Your task to perform on an android device: turn notification dots on Image 0: 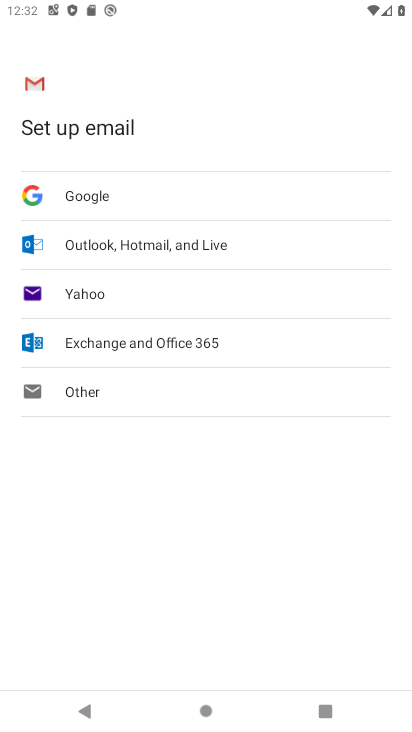
Step 0: press home button
Your task to perform on an android device: turn notification dots on Image 1: 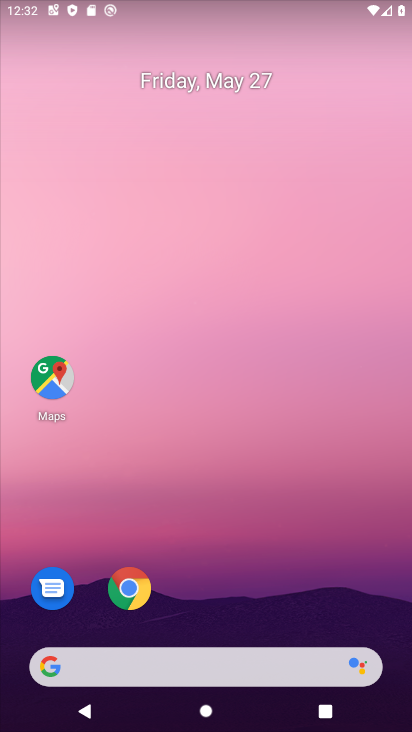
Step 1: drag from (147, 724) to (180, 72)
Your task to perform on an android device: turn notification dots on Image 2: 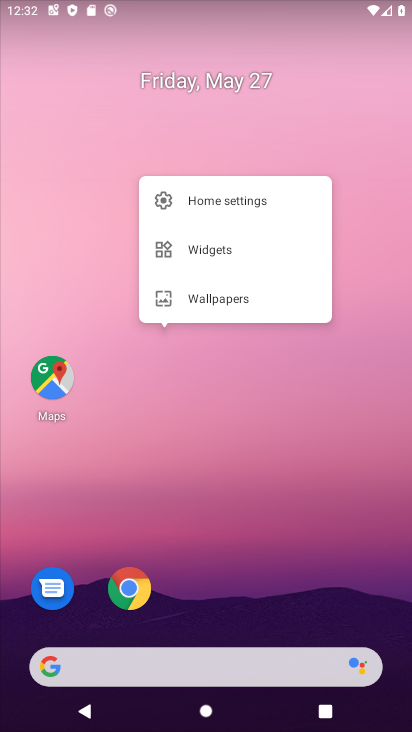
Step 2: click (143, 731)
Your task to perform on an android device: turn notification dots on Image 3: 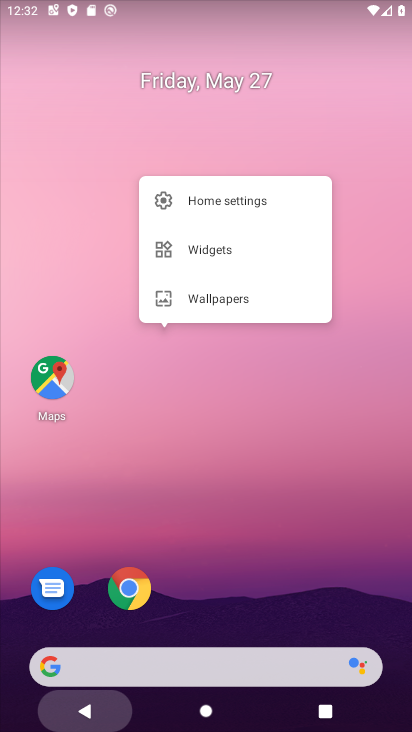
Step 3: drag from (146, 581) to (136, 90)
Your task to perform on an android device: turn notification dots on Image 4: 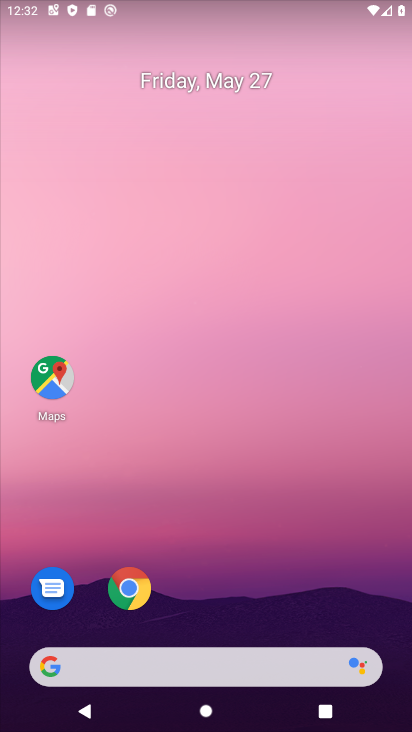
Step 4: press home button
Your task to perform on an android device: turn notification dots on Image 5: 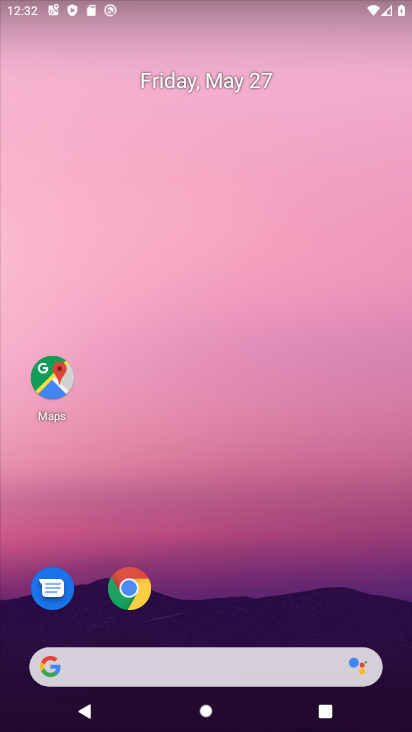
Step 5: drag from (157, 729) to (186, 62)
Your task to perform on an android device: turn notification dots on Image 6: 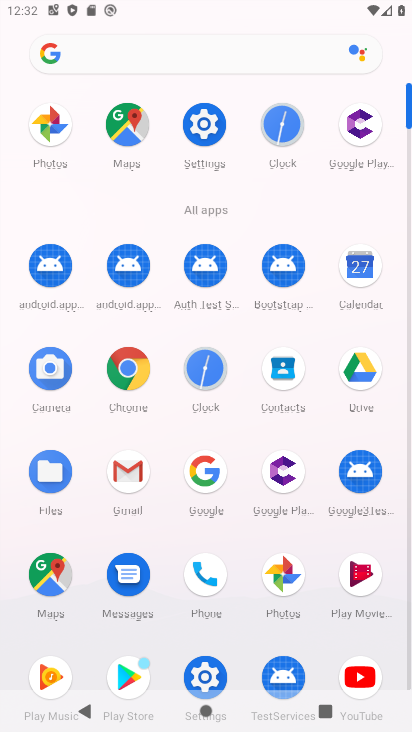
Step 6: click (207, 138)
Your task to perform on an android device: turn notification dots on Image 7: 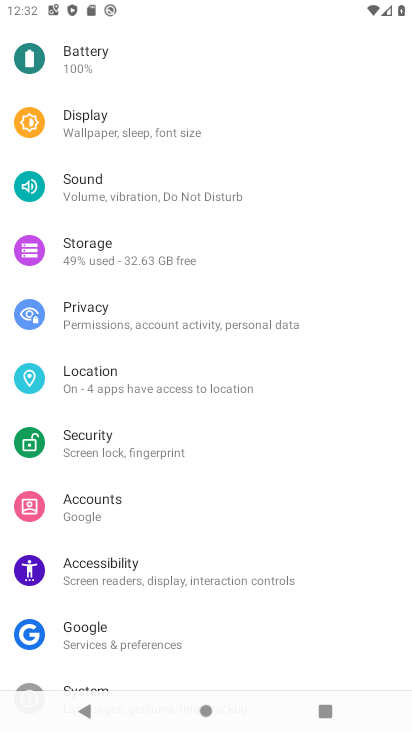
Step 7: drag from (261, 139) to (260, 514)
Your task to perform on an android device: turn notification dots on Image 8: 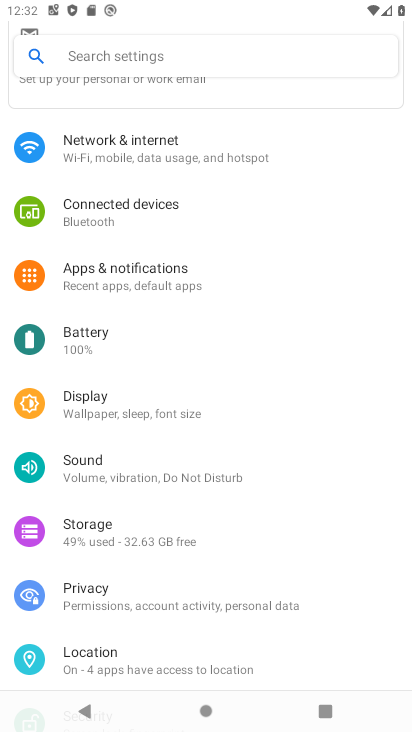
Step 8: click (165, 281)
Your task to perform on an android device: turn notification dots on Image 9: 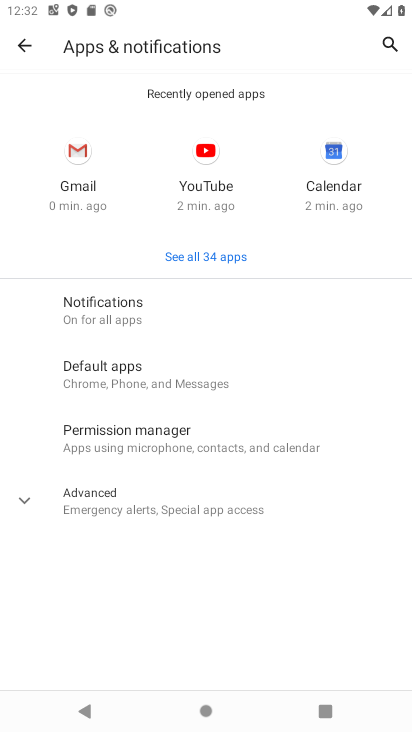
Step 9: click (138, 311)
Your task to perform on an android device: turn notification dots on Image 10: 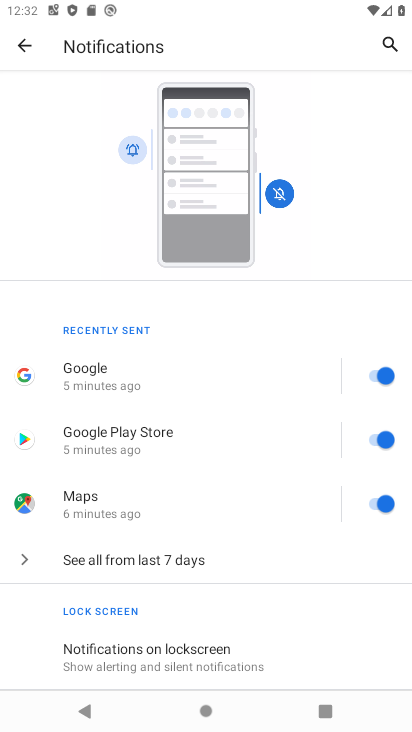
Step 10: drag from (255, 618) to (285, 243)
Your task to perform on an android device: turn notification dots on Image 11: 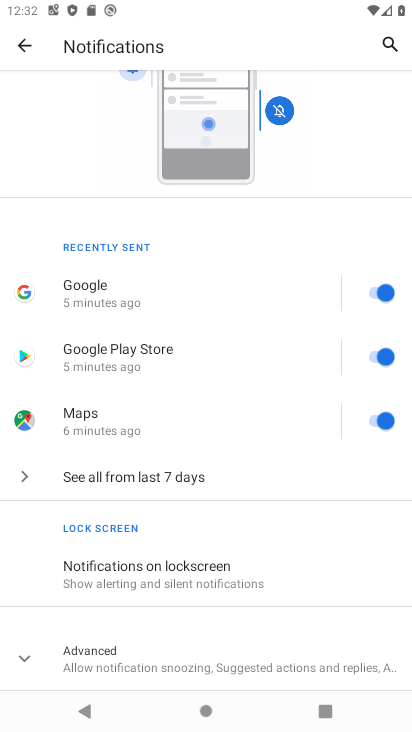
Step 11: click (195, 663)
Your task to perform on an android device: turn notification dots on Image 12: 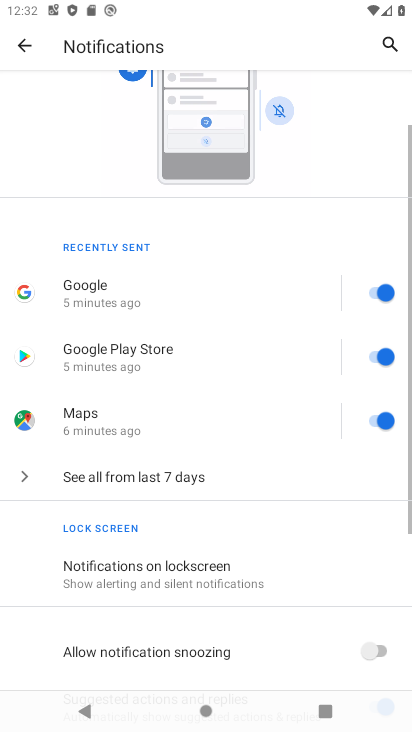
Step 12: task complete